Your task to perform on an android device: allow cookies in the chrome app Image 0: 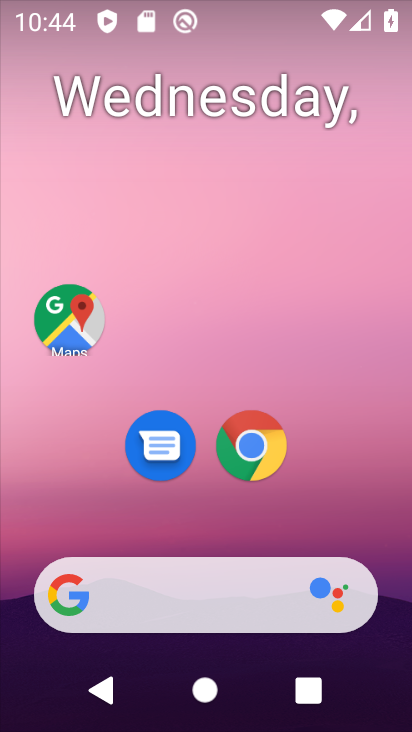
Step 0: click (253, 449)
Your task to perform on an android device: allow cookies in the chrome app Image 1: 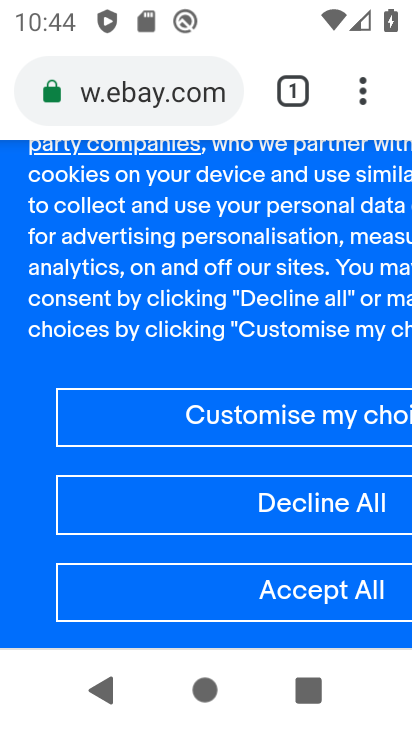
Step 1: drag from (360, 90) to (109, 465)
Your task to perform on an android device: allow cookies in the chrome app Image 2: 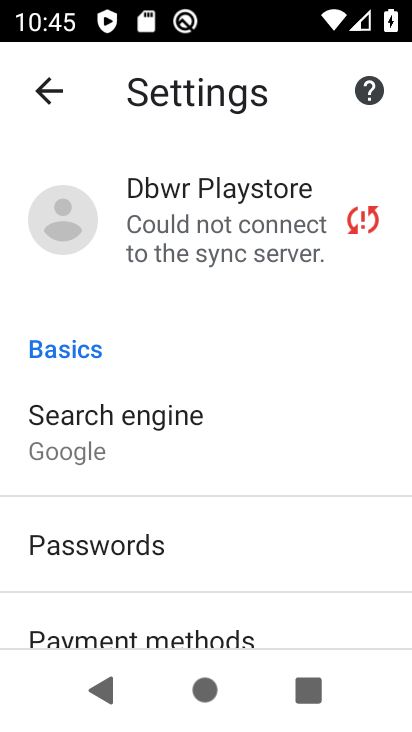
Step 2: drag from (179, 612) to (321, 37)
Your task to perform on an android device: allow cookies in the chrome app Image 3: 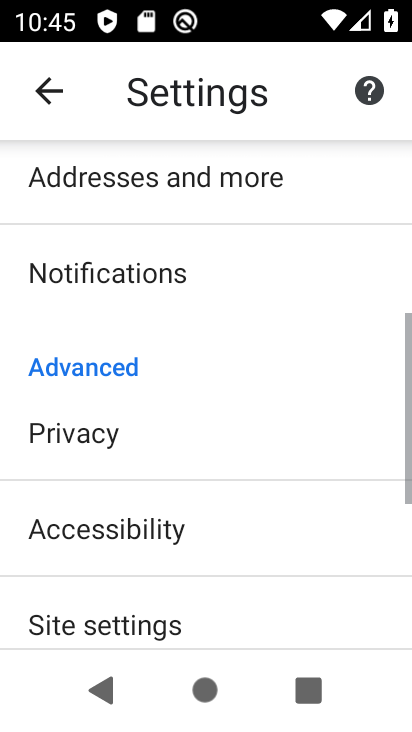
Step 3: click (83, 616)
Your task to perform on an android device: allow cookies in the chrome app Image 4: 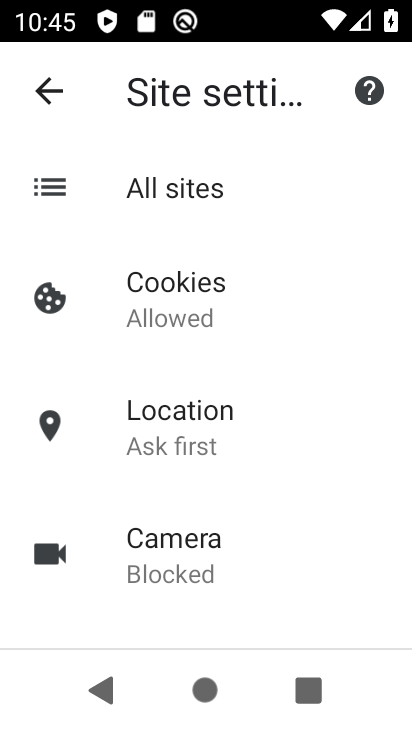
Step 4: click (220, 307)
Your task to perform on an android device: allow cookies in the chrome app Image 5: 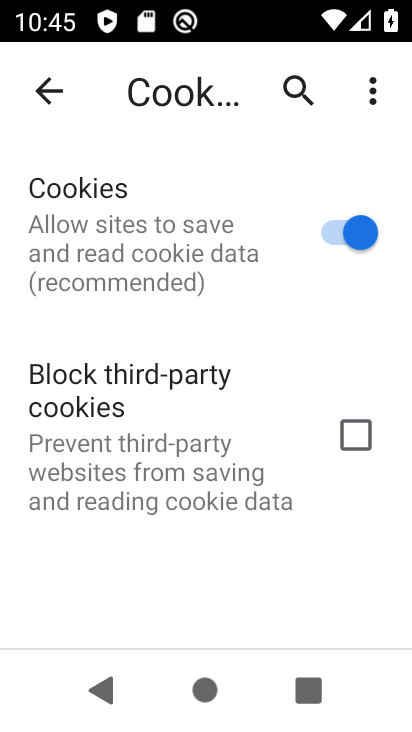
Step 5: task complete